Your task to perform on an android device: open app "Google Maps" Image 0: 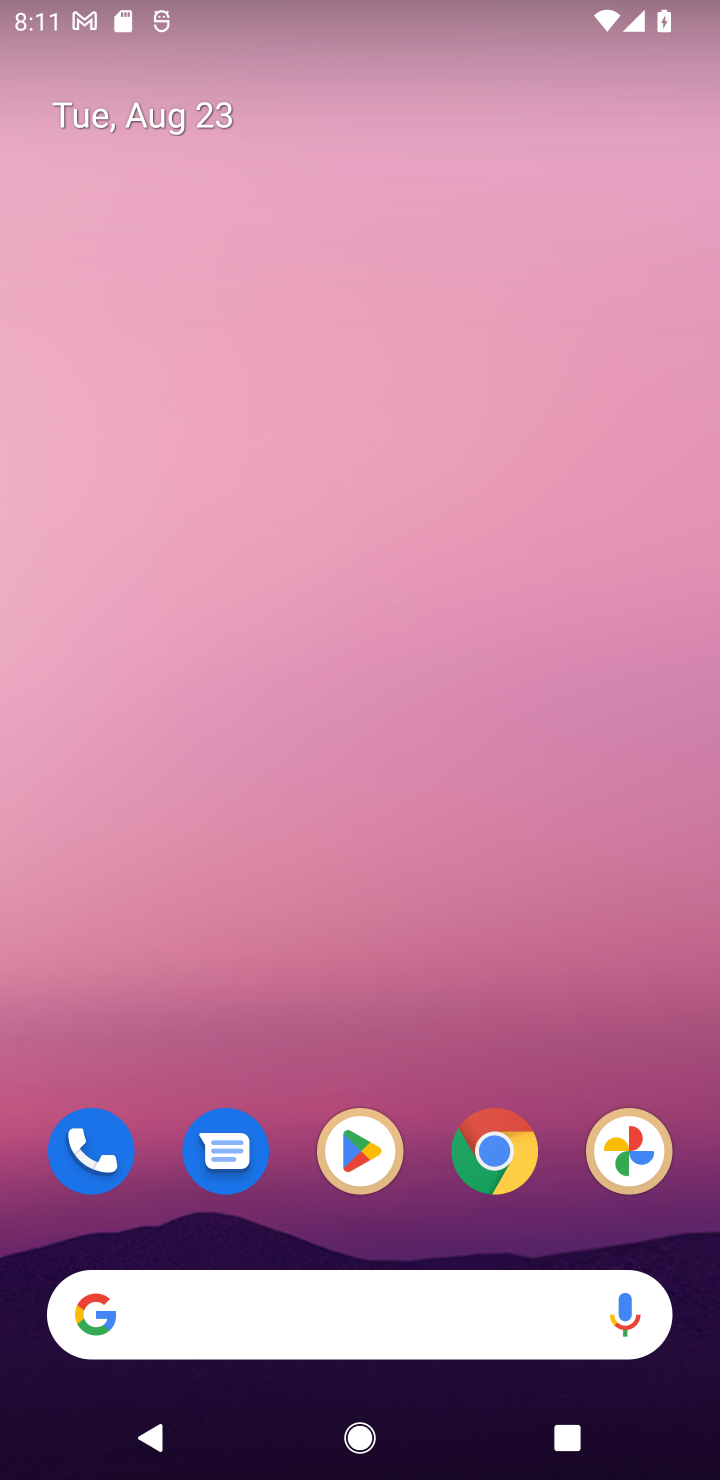
Step 0: click (366, 1156)
Your task to perform on an android device: open app "Google Maps" Image 1: 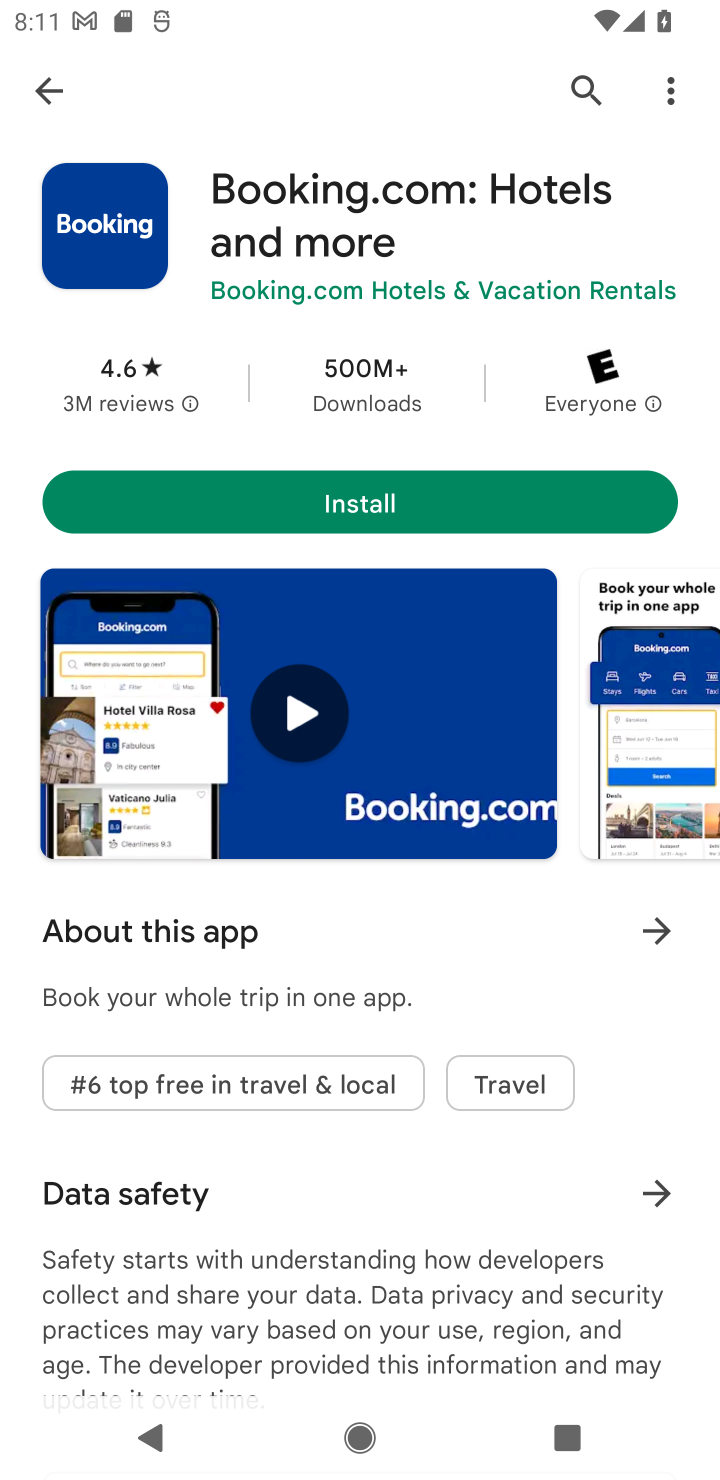
Step 1: click (42, 94)
Your task to perform on an android device: open app "Google Maps" Image 2: 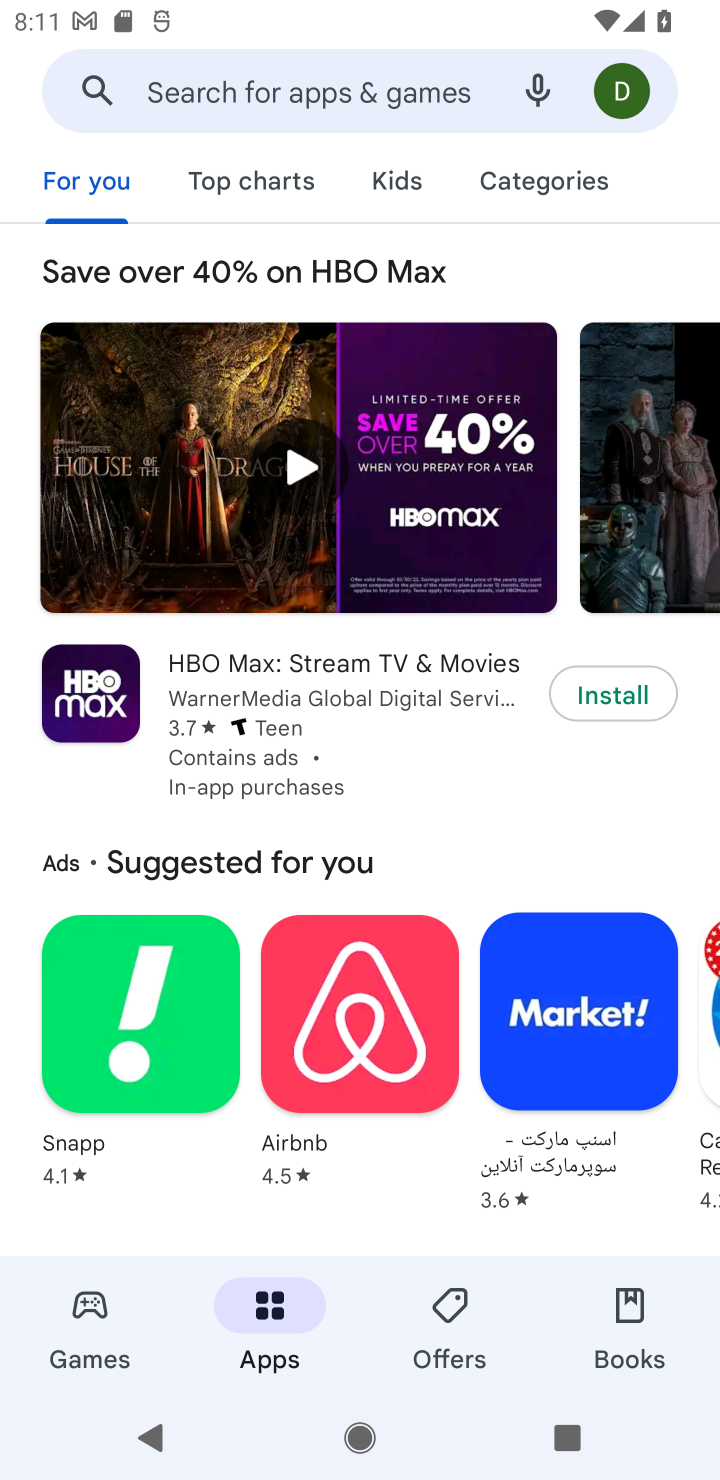
Step 2: click (172, 94)
Your task to perform on an android device: open app "Google Maps" Image 3: 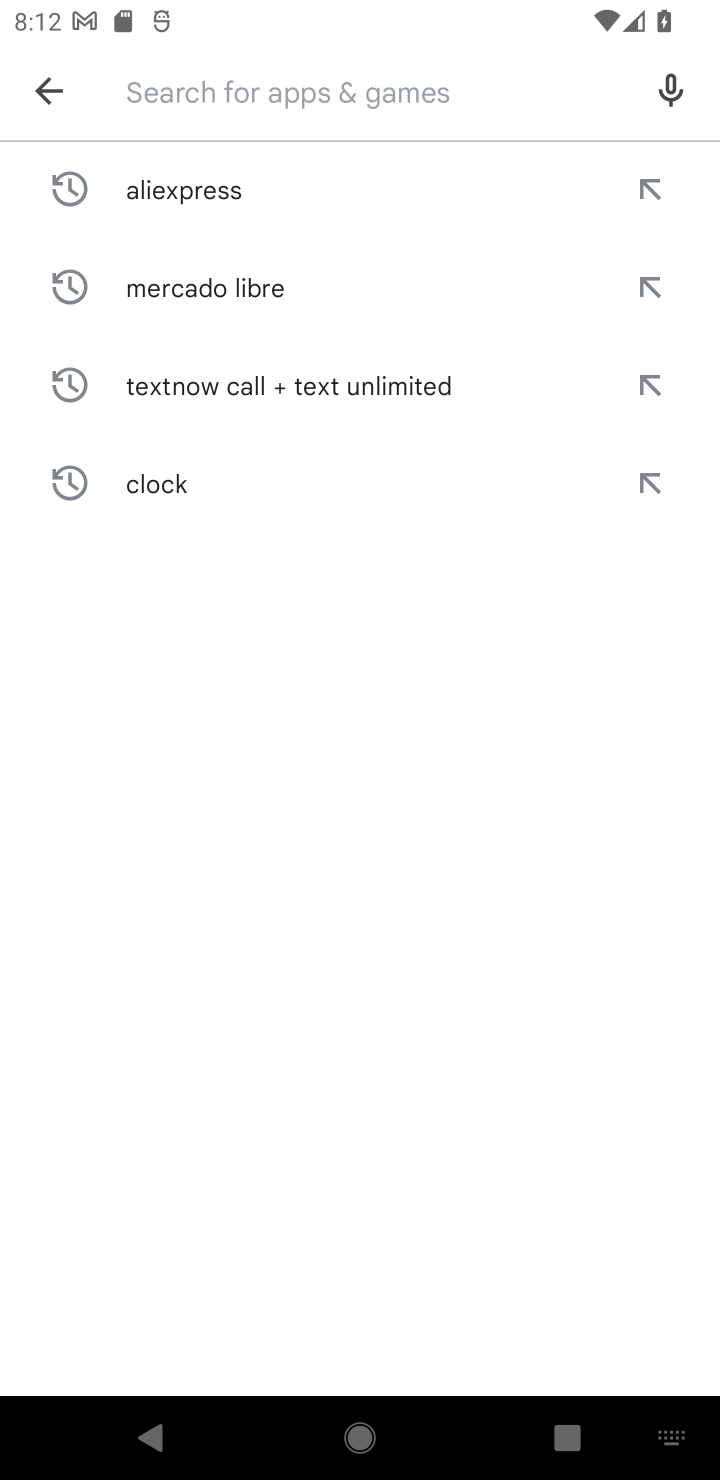
Step 3: type "Google Maps"
Your task to perform on an android device: open app "Google Maps" Image 4: 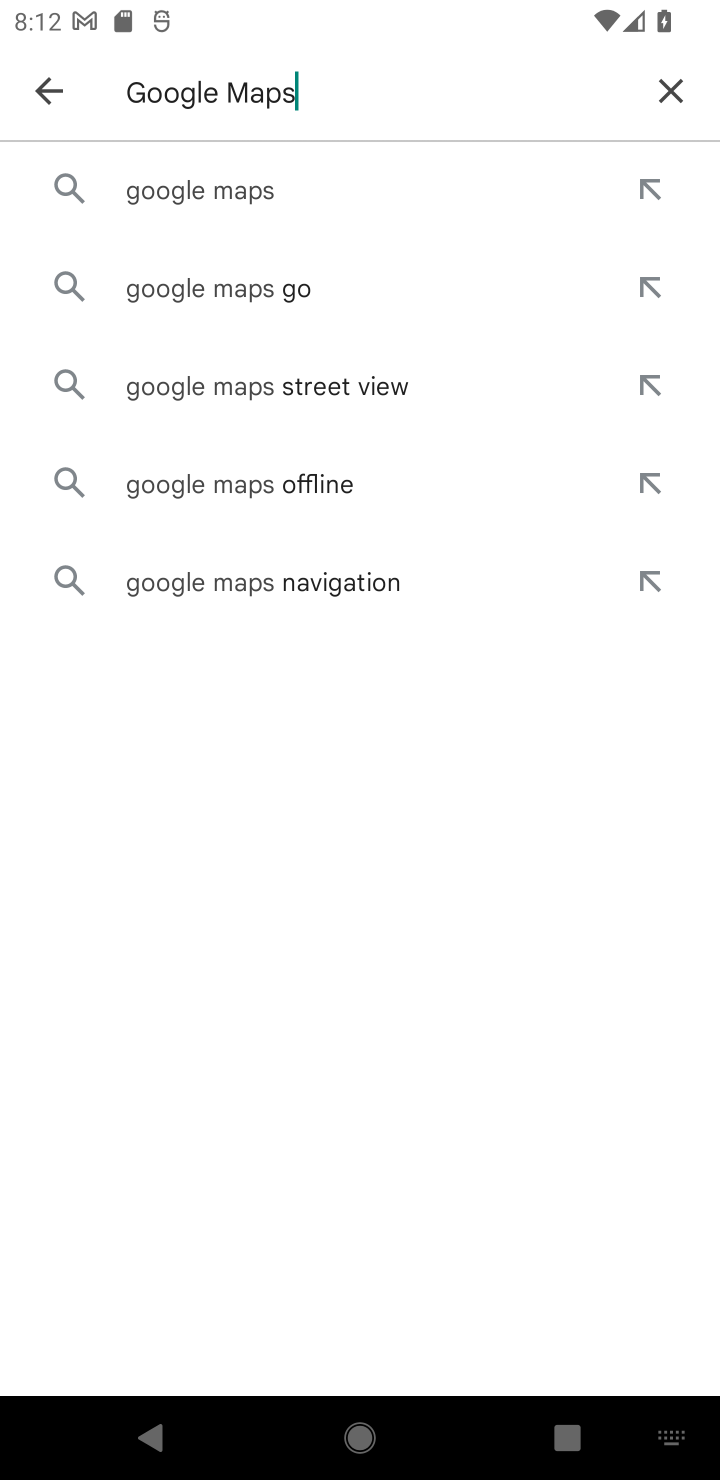
Step 4: click (241, 183)
Your task to perform on an android device: open app "Google Maps" Image 5: 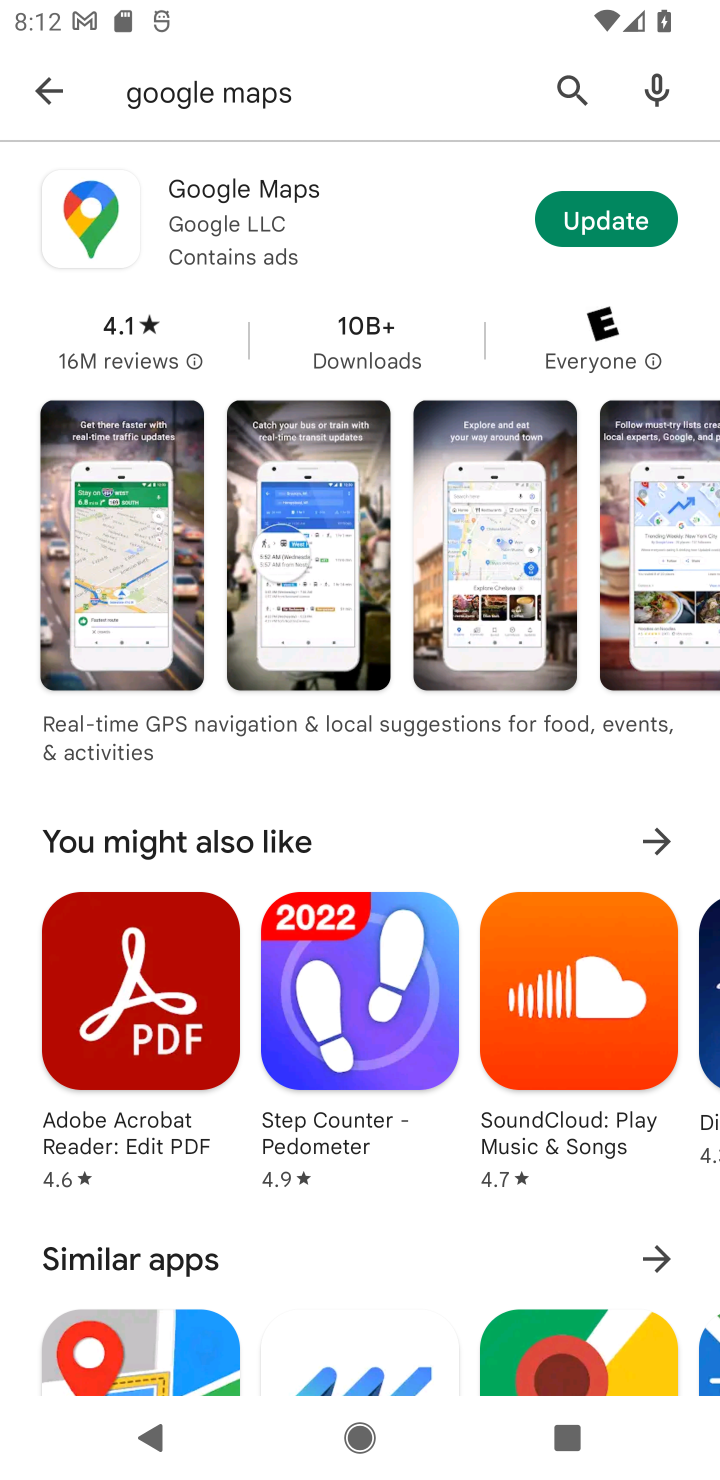
Step 5: click (610, 227)
Your task to perform on an android device: open app "Google Maps" Image 6: 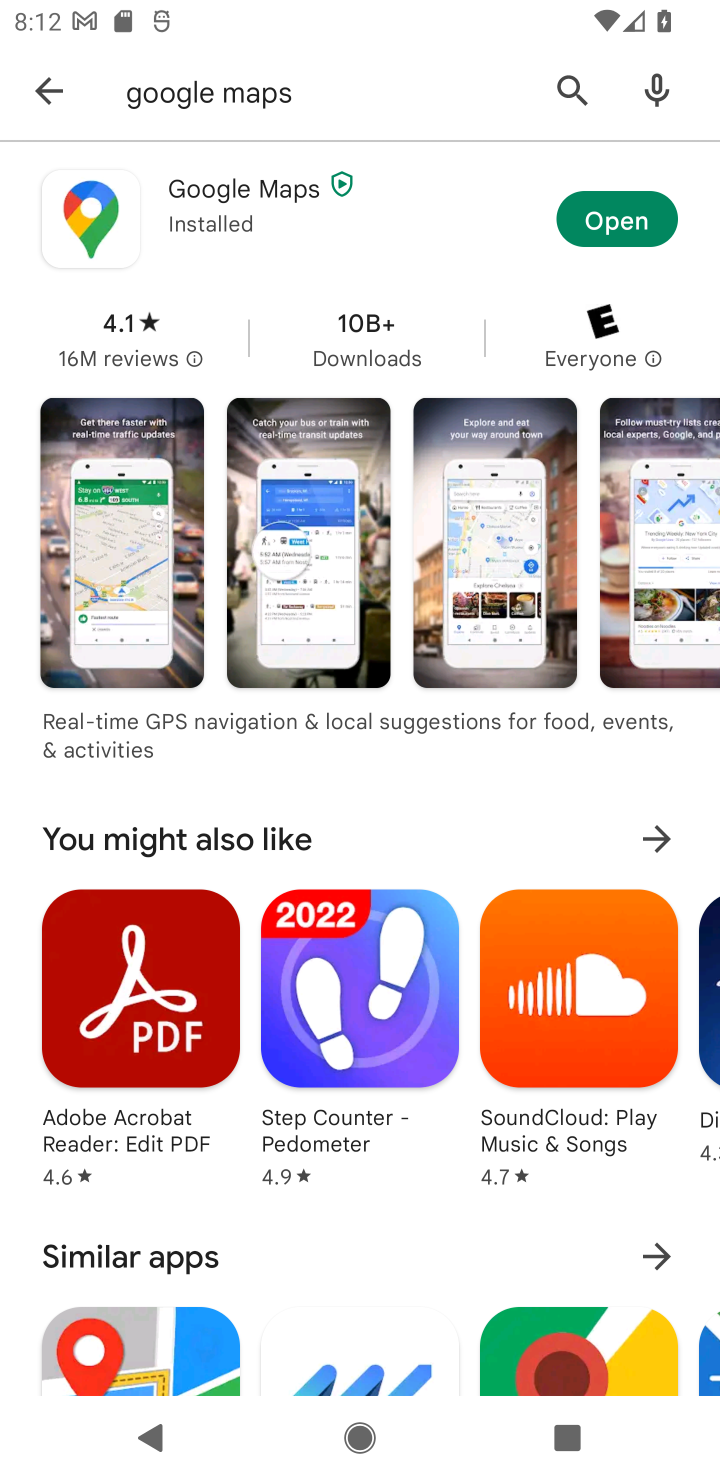
Step 6: click (613, 222)
Your task to perform on an android device: open app "Google Maps" Image 7: 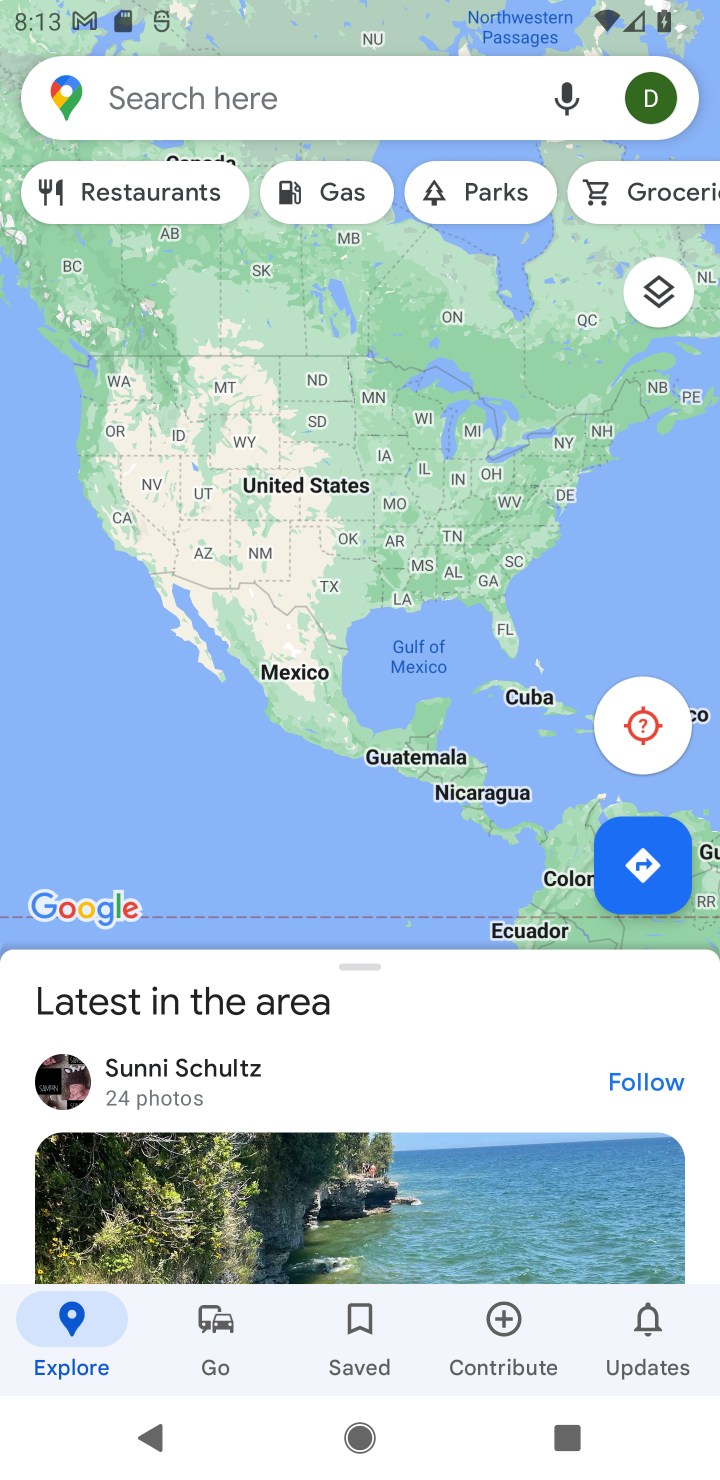
Step 7: task complete